Your task to perform on an android device: turn off picture-in-picture Image 0: 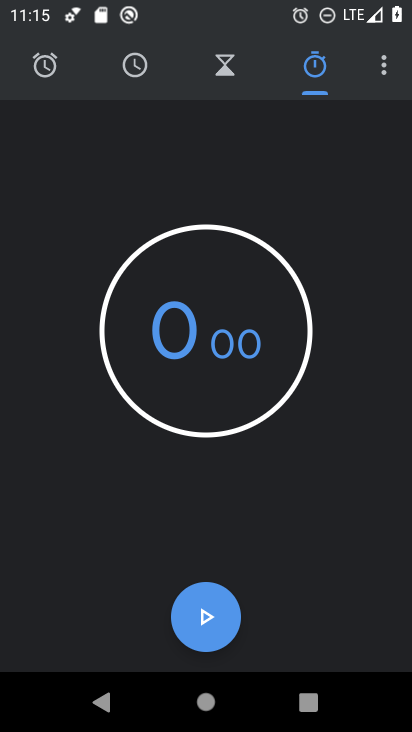
Step 0: press home button
Your task to perform on an android device: turn off picture-in-picture Image 1: 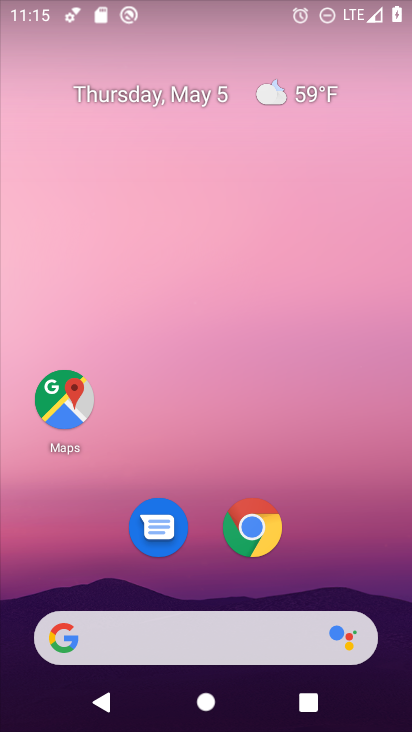
Step 1: click (267, 520)
Your task to perform on an android device: turn off picture-in-picture Image 2: 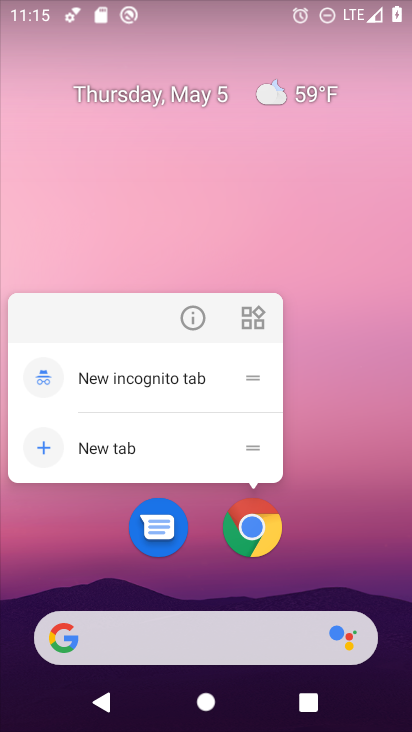
Step 2: click (201, 315)
Your task to perform on an android device: turn off picture-in-picture Image 3: 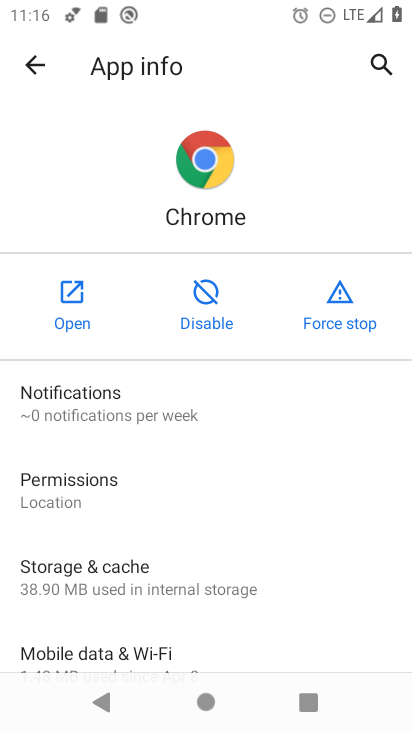
Step 3: drag from (248, 665) to (285, 88)
Your task to perform on an android device: turn off picture-in-picture Image 4: 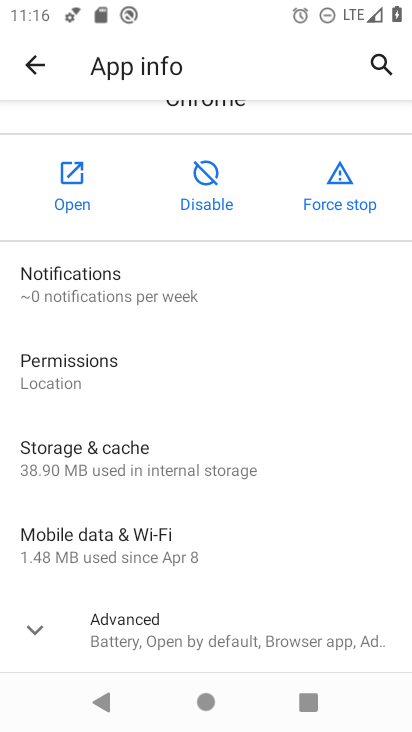
Step 4: click (211, 642)
Your task to perform on an android device: turn off picture-in-picture Image 5: 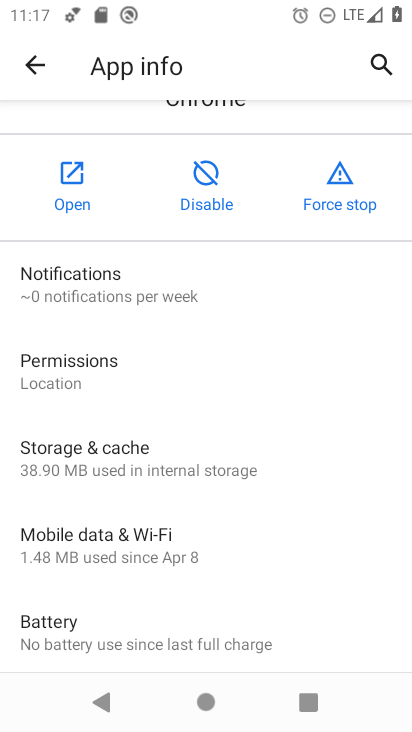
Step 5: drag from (297, 594) to (292, 3)
Your task to perform on an android device: turn off picture-in-picture Image 6: 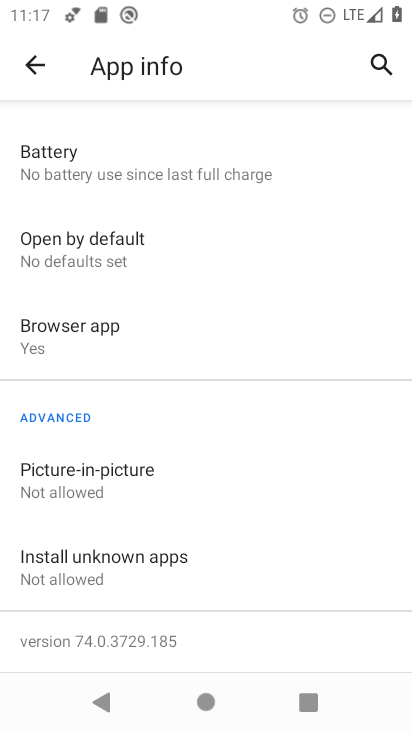
Step 6: click (86, 482)
Your task to perform on an android device: turn off picture-in-picture Image 7: 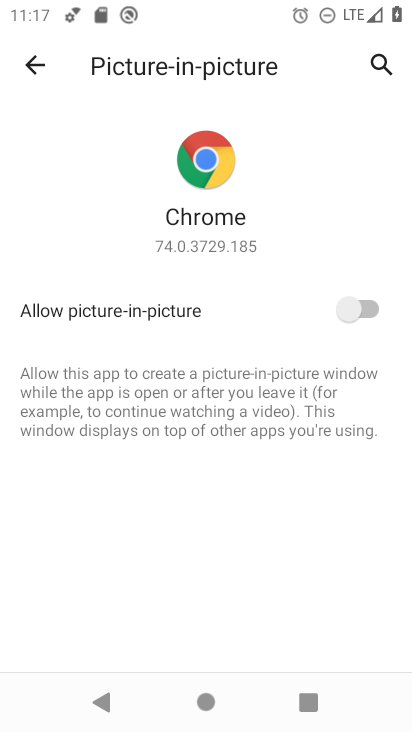
Step 7: task complete